Your task to perform on an android device: see creations saved in the google photos Image 0: 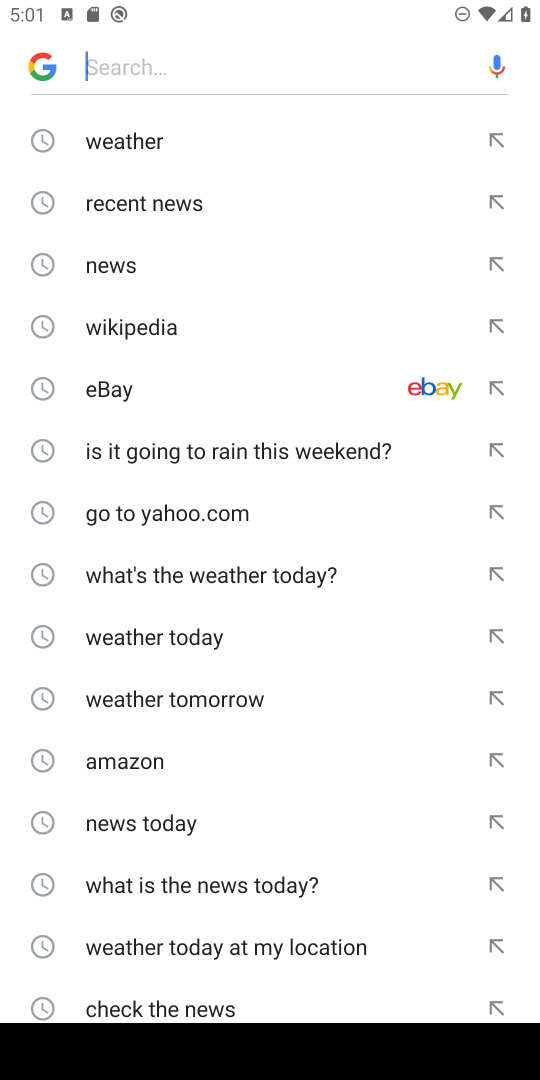
Step 0: press home button
Your task to perform on an android device: see creations saved in the google photos Image 1: 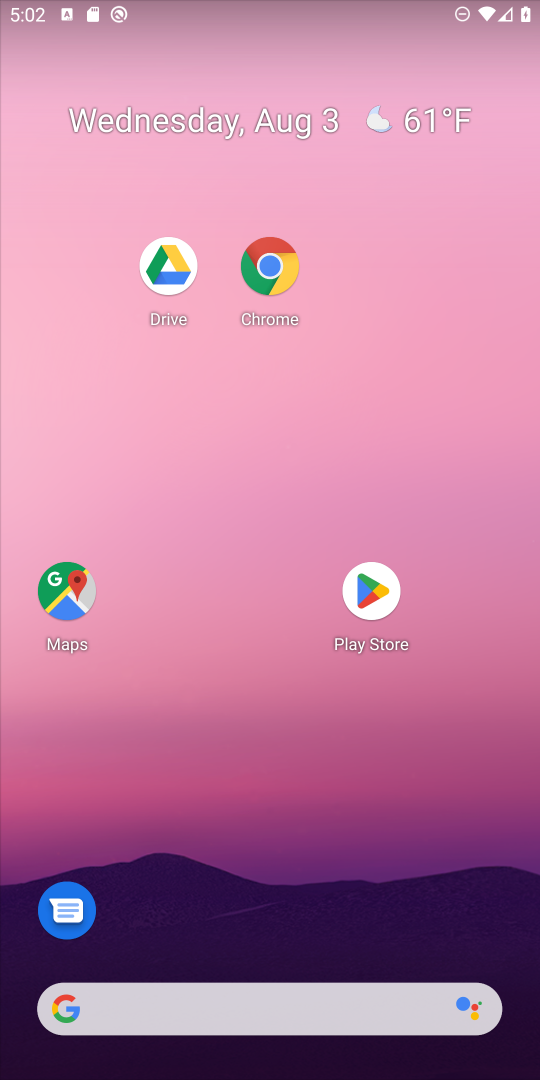
Step 1: drag from (355, 934) to (314, 24)
Your task to perform on an android device: see creations saved in the google photos Image 2: 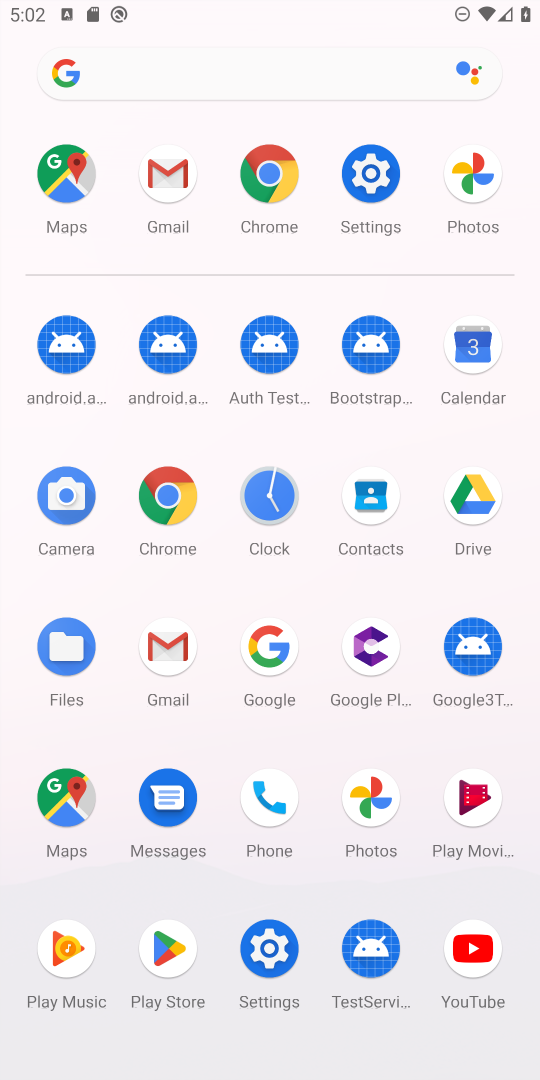
Step 2: click (375, 789)
Your task to perform on an android device: see creations saved in the google photos Image 3: 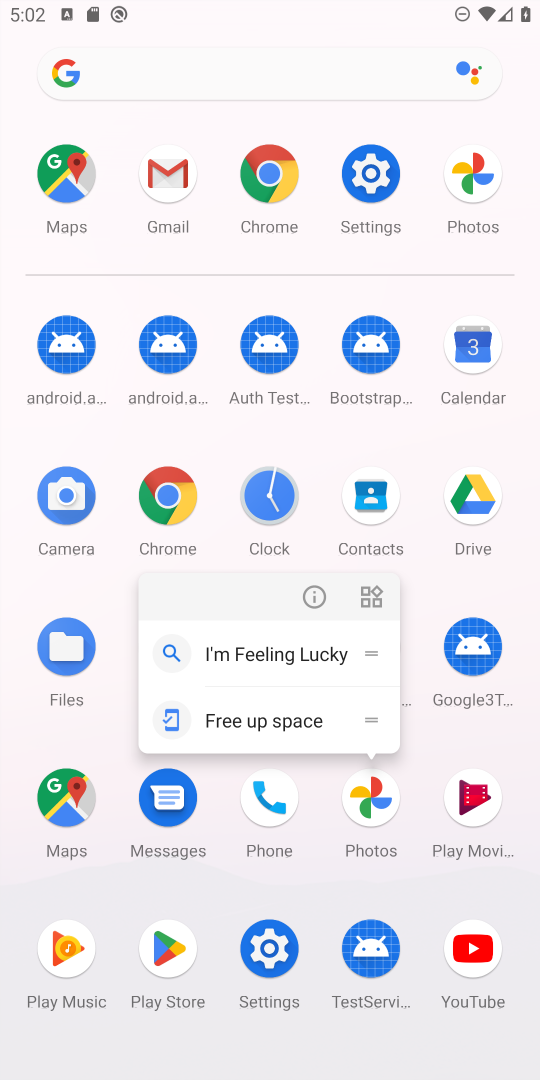
Step 3: click (375, 789)
Your task to perform on an android device: see creations saved in the google photos Image 4: 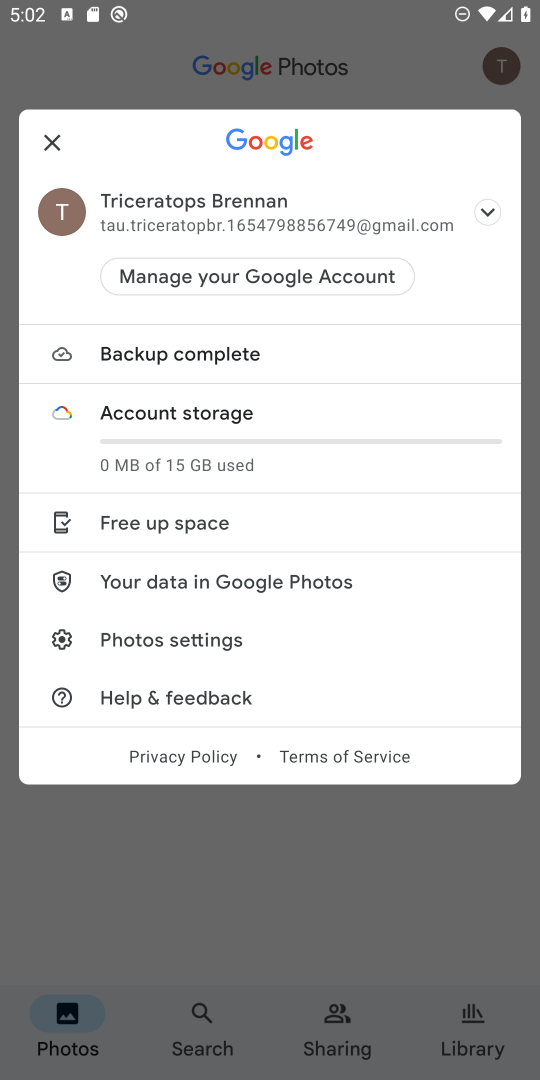
Step 4: click (56, 130)
Your task to perform on an android device: see creations saved in the google photos Image 5: 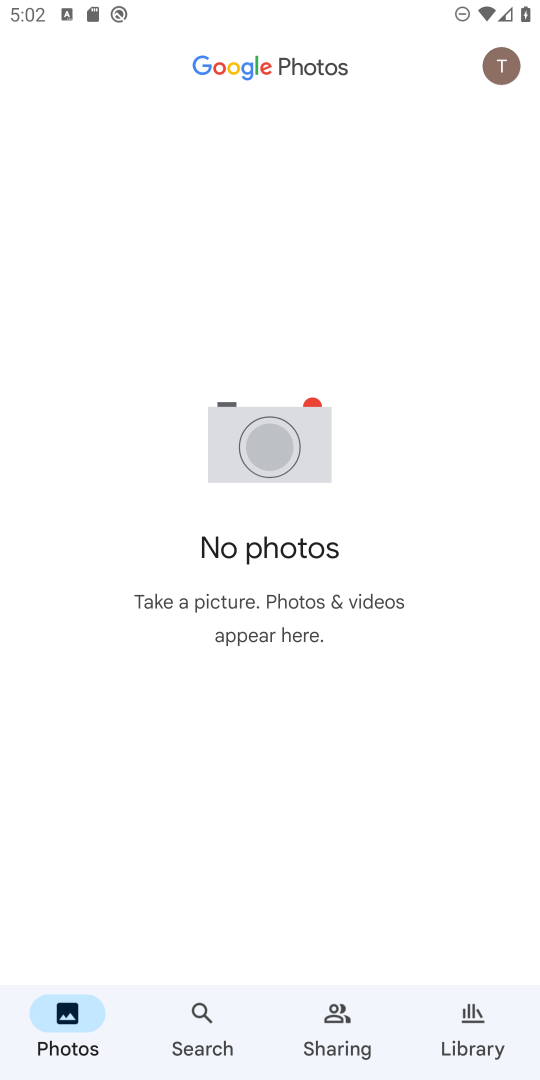
Step 5: click (344, 1015)
Your task to perform on an android device: see creations saved in the google photos Image 6: 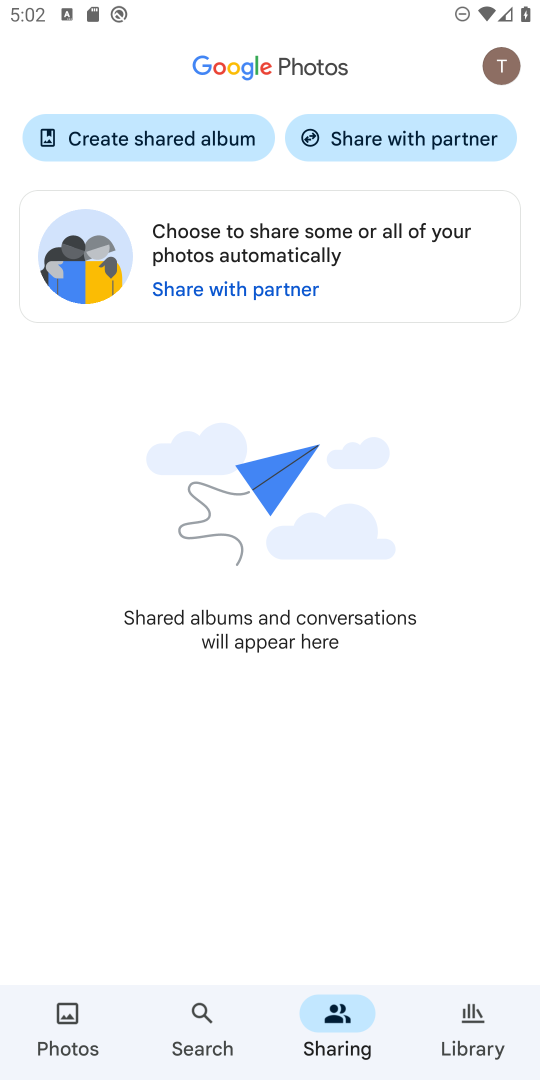
Step 6: task complete